Your task to perform on an android device: Open display settings Image 0: 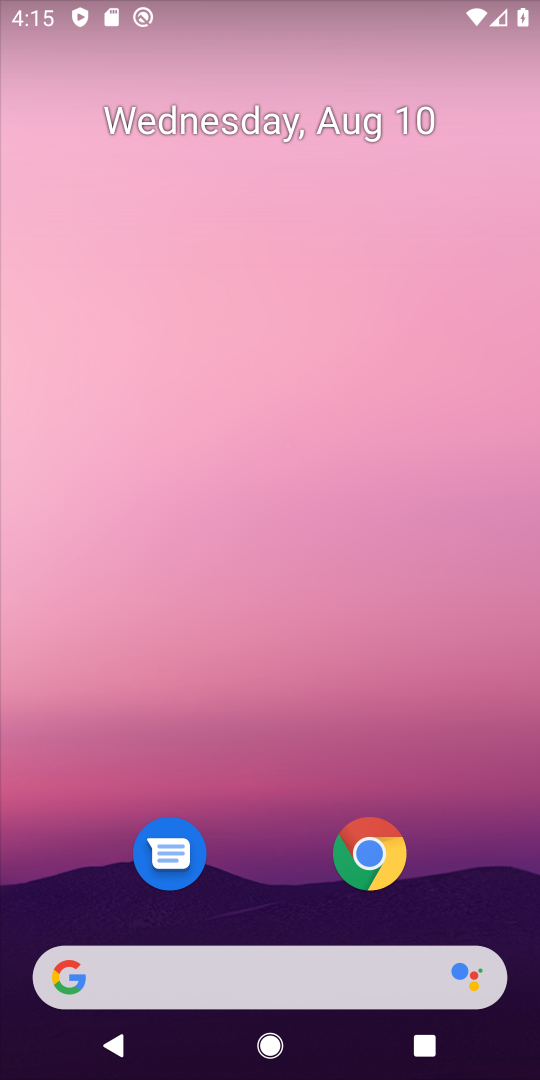
Step 0: drag from (88, 749) to (358, 166)
Your task to perform on an android device: Open display settings Image 1: 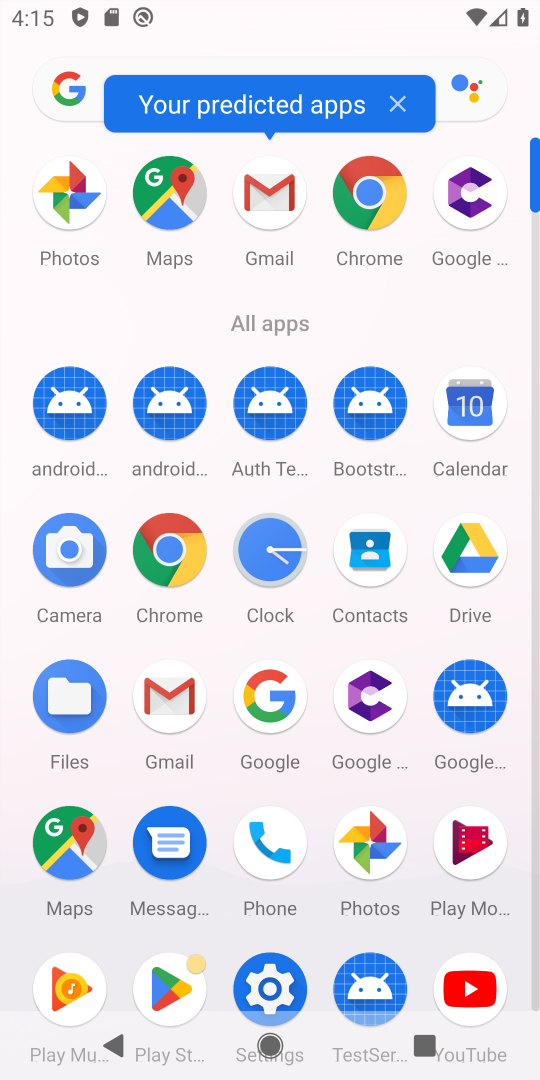
Step 1: click (264, 961)
Your task to perform on an android device: Open display settings Image 2: 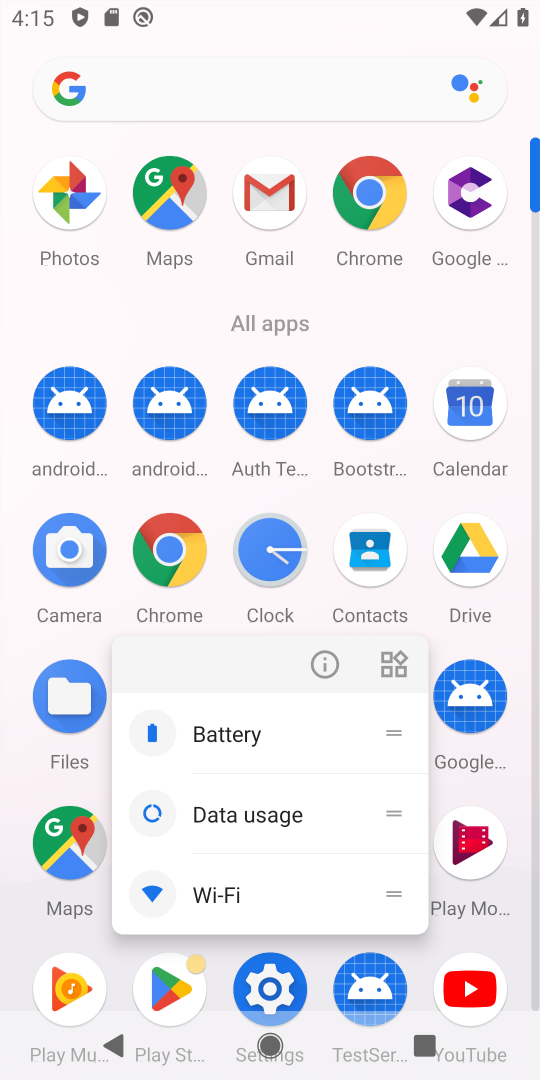
Step 2: click (278, 976)
Your task to perform on an android device: Open display settings Image 3: 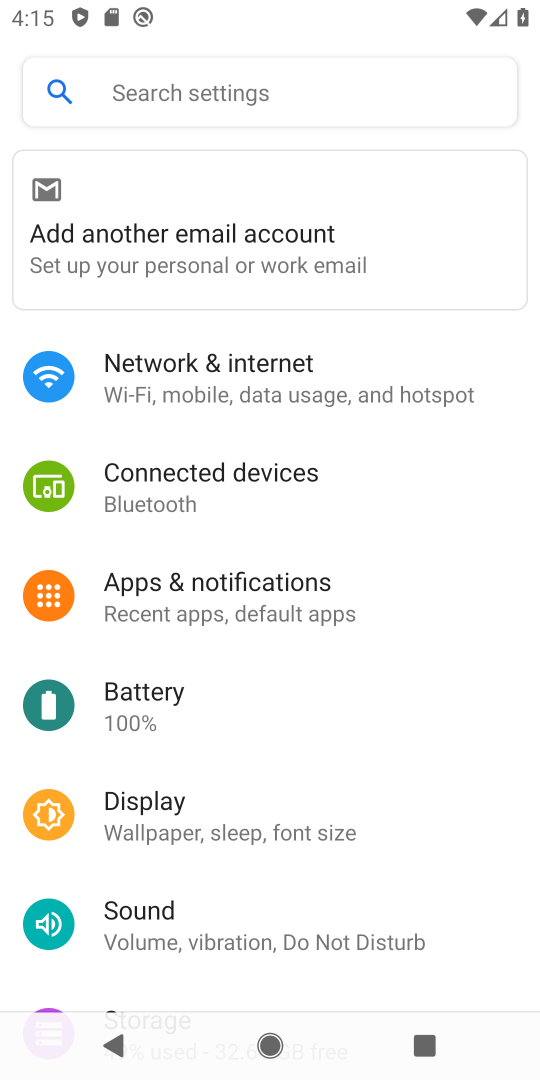
Step 3: click (216, 792)
Your task to perform on an android device: Open display settings Image 4: 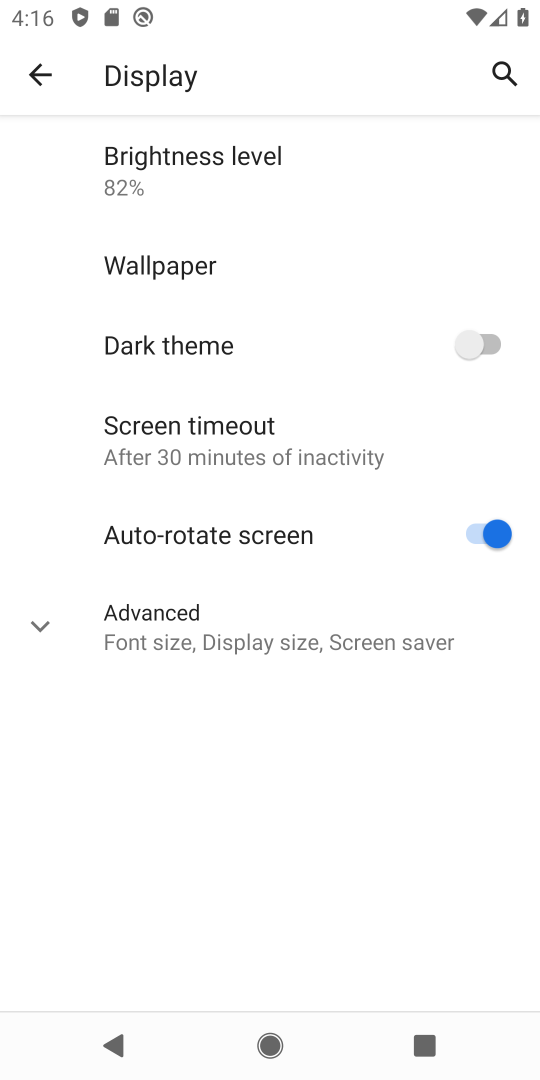
Step 4: task complete